Your task to perform on an android device: empty trash in the gmail app Image 0: 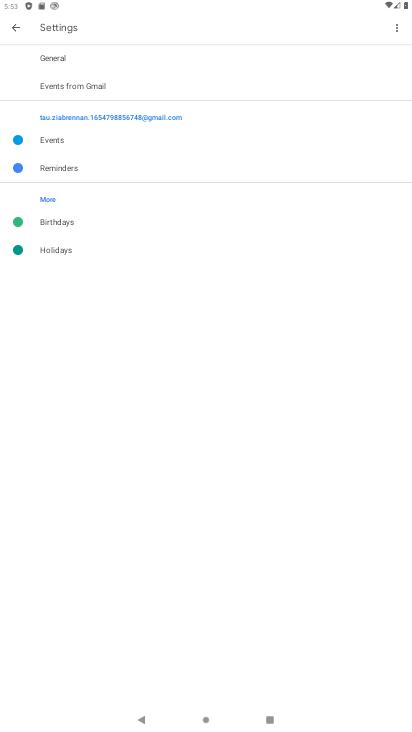
Step 0: press home button
Your task to perform on an android device: empty trash in the gmail app Image 1: 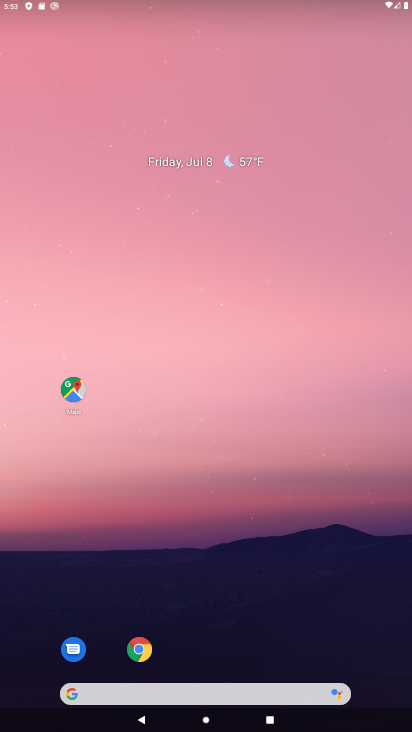
Step 1: drag from (288, 701) to (305, 0)
Your task to perform on an android device: empty trash in the gmail app Image 2: 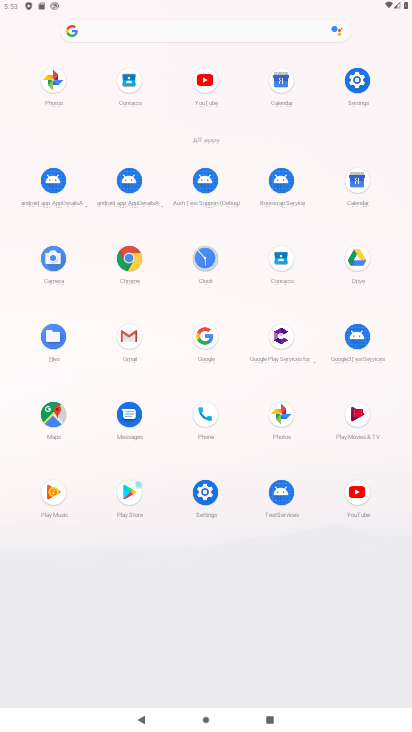
Step 2: click (127, 326)
Your task to perform on an android device: empty trash in the gmail app Image 3: 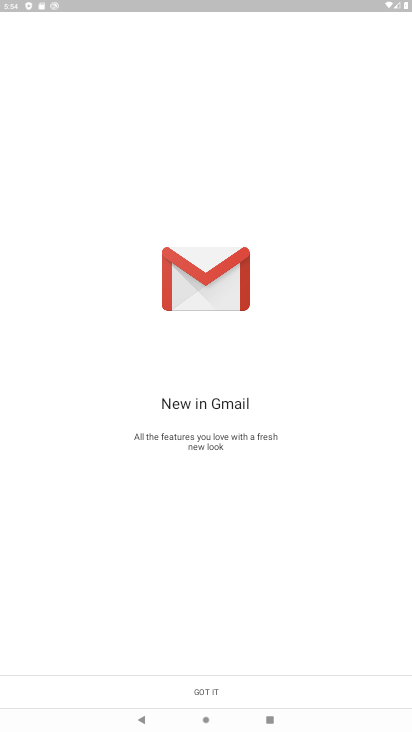
Step 3: click (219, 697)
Your task to perform on an android device: empty trash in the gmail app Image 4: 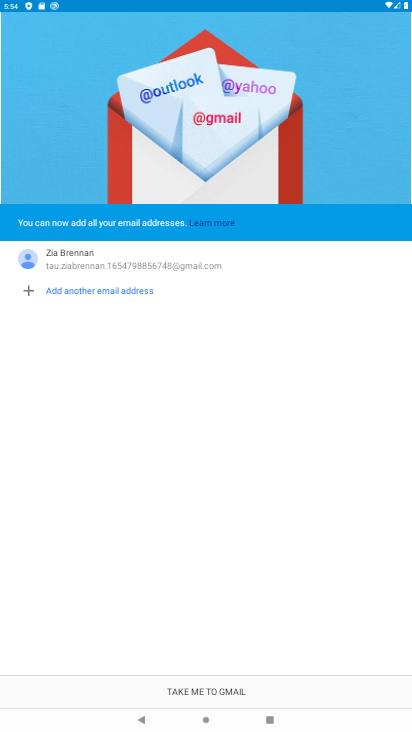
Step 4: click (260, 692)
Your task to perform on an android device: empty trash in the gmail app Image 5: 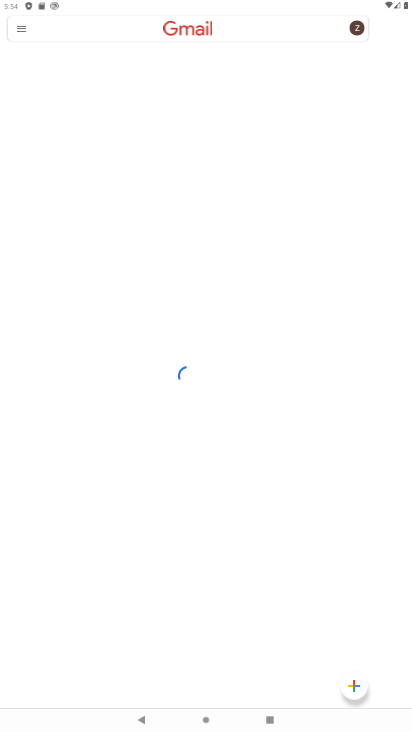
Step 5: click (27, 26)
Your task to perform on an android device: empty trash in the gmail app Image 6: 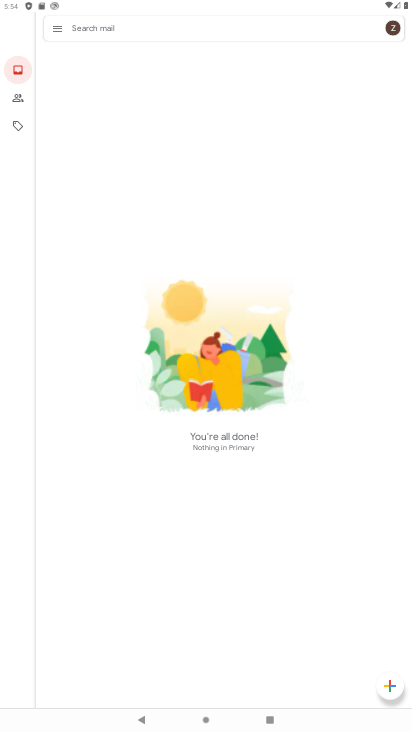
Step 6: click (50, 28)
Your task to perform on an android device: empty trash in the gmail app Image 7: 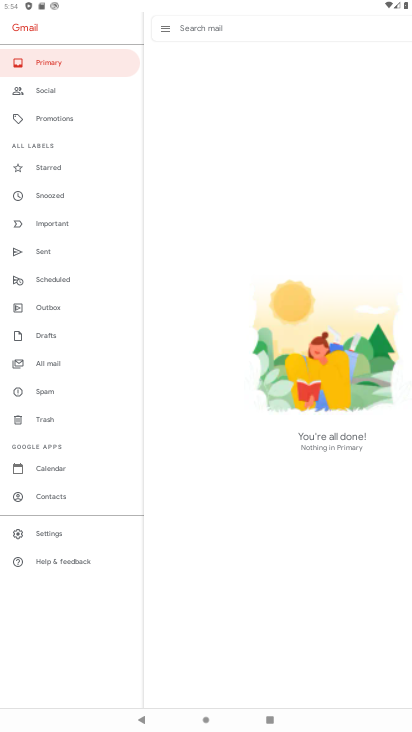
Step 7: click (52, 417)
Your task to perform on an android device: empty trash in the gmail app Image 8: 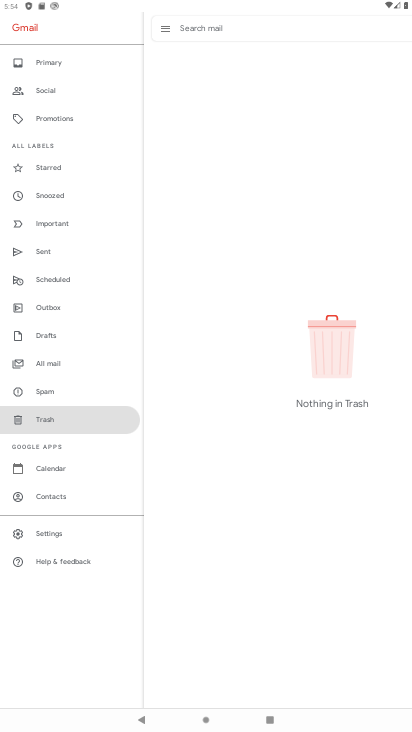
Step 8: task complete